Your task to perform on an android device: What's the weather today? Image 0: 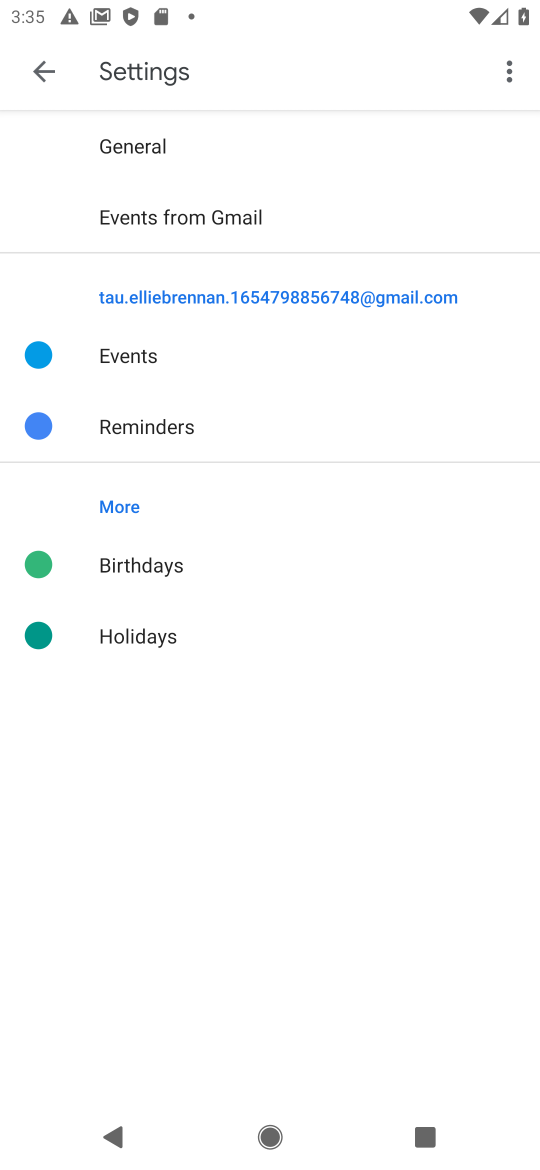
Step 0: press back button
Your task to perform on an android device: What's the weather today? Image 1: 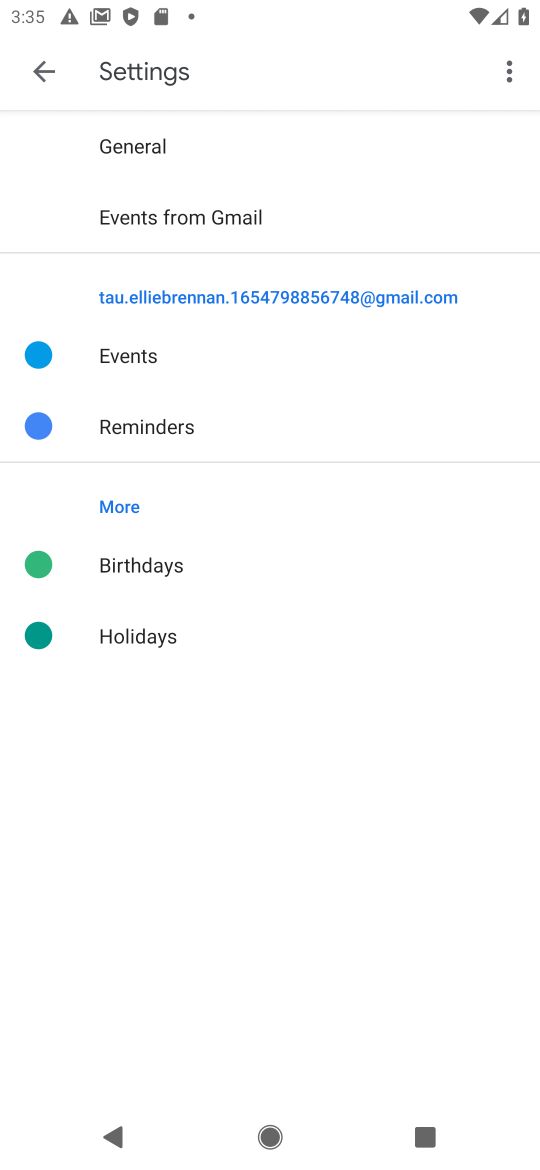
Step 1: press back button
Your task to perform on an android device: What's the weather today? Image 2: 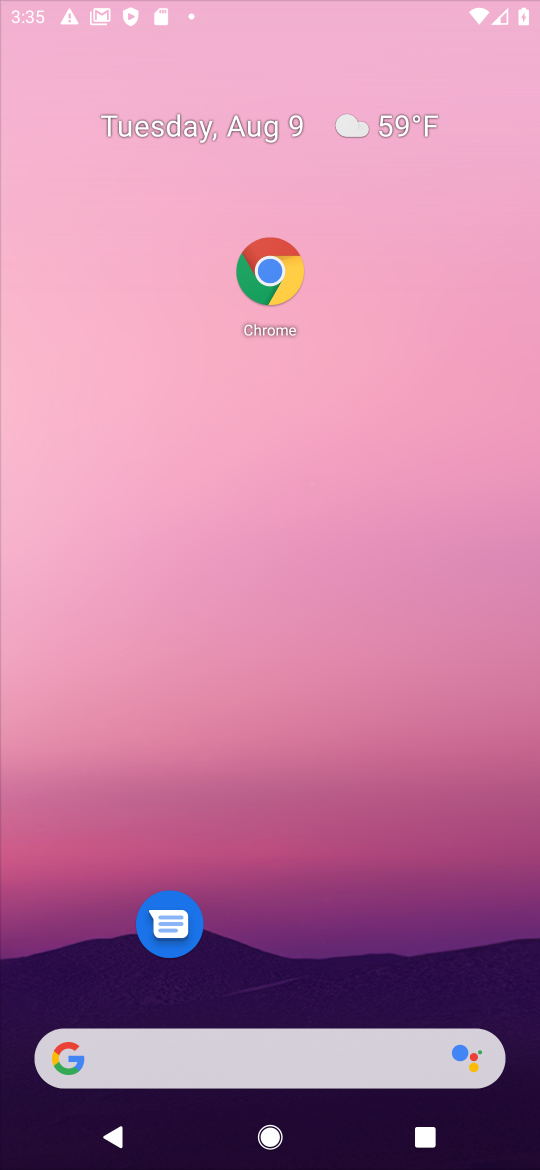
Step 2: press back button
Your task to perform on an android device: What's the weather today? Image 3: 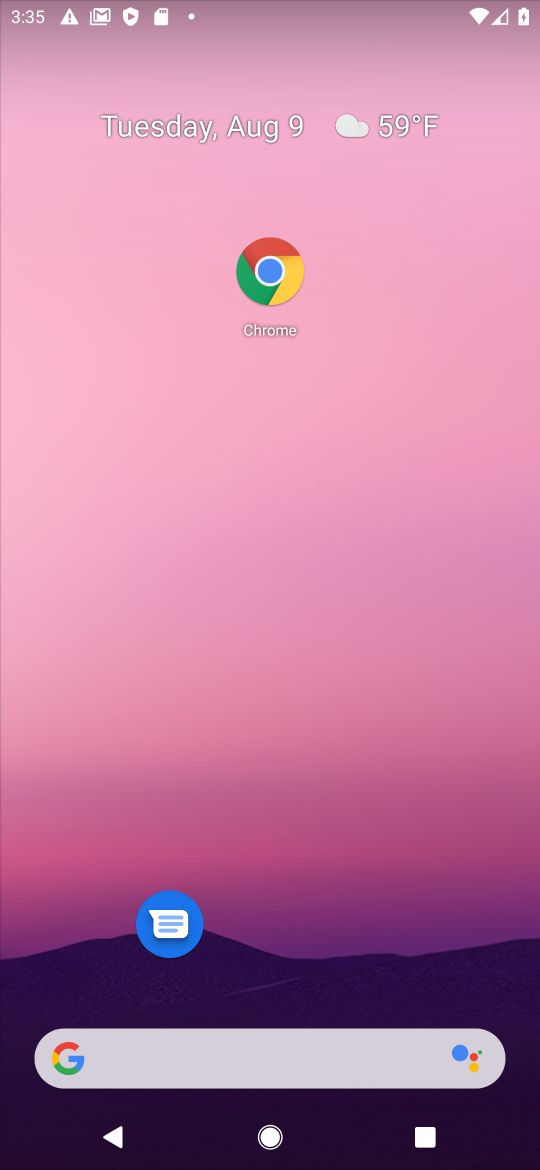
Step 3: press back button
Your task to perform on an android device: What's the weather today? Image 4: 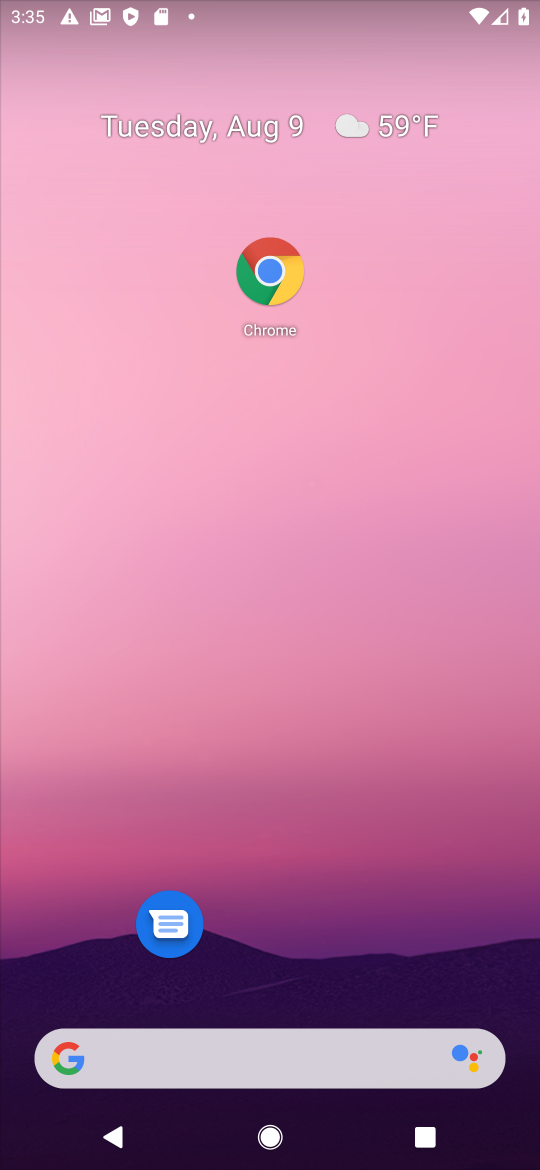
Step 4: drag from (338, 1027) to (252, 291)
Your task to perform on an android device: What's the weather today? Image 5: 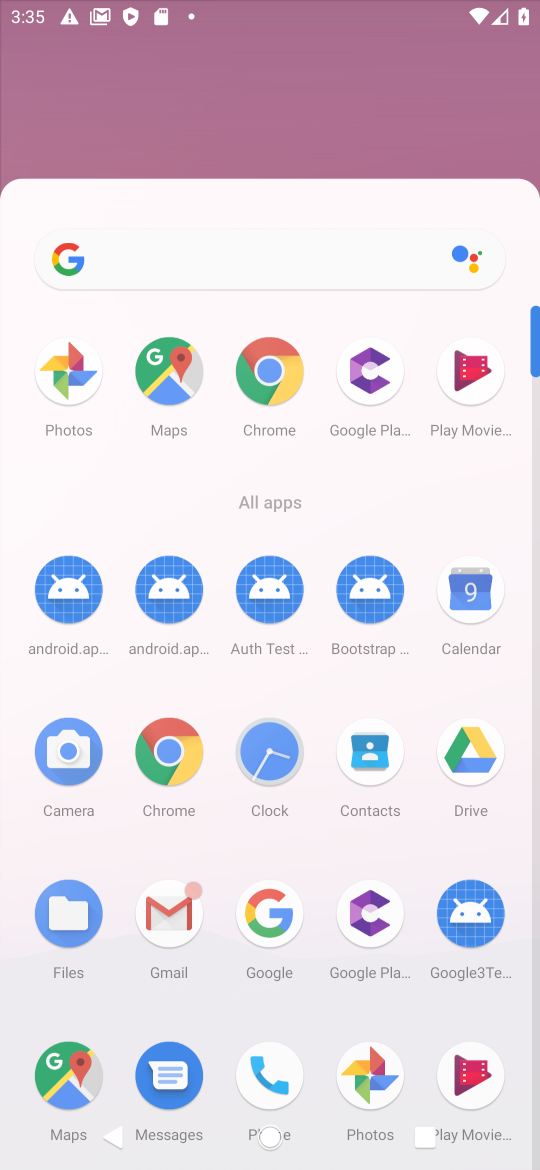
Step 5: drag from (255, 632) to (255, 162)
Your task to perform on an android device: What's the weather today? Image 6: 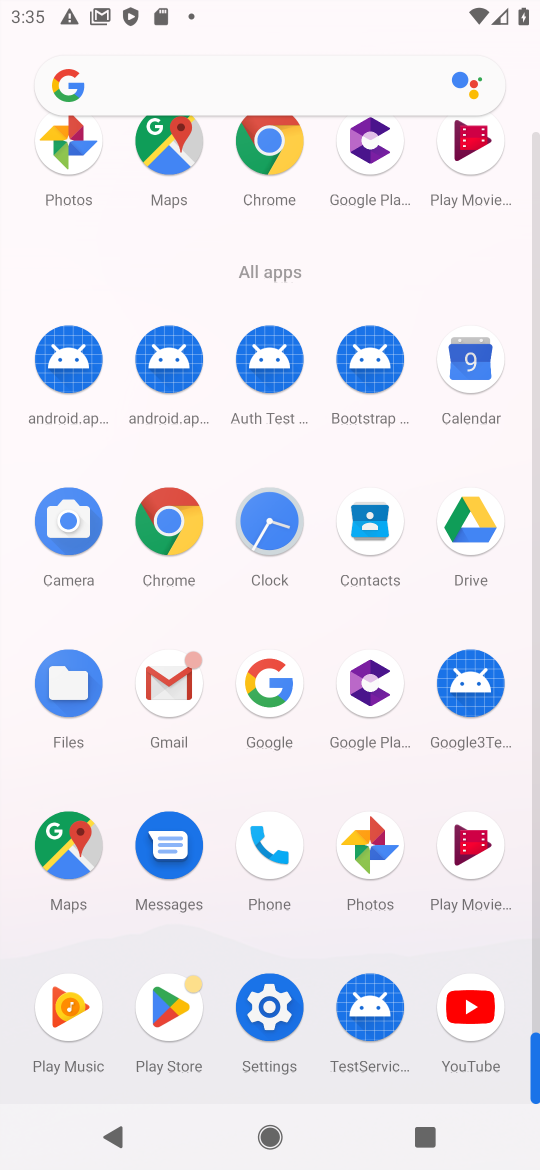
Step 6: click (284, 205)
Your task to perform on an android device: What's the weather today? Image 7: 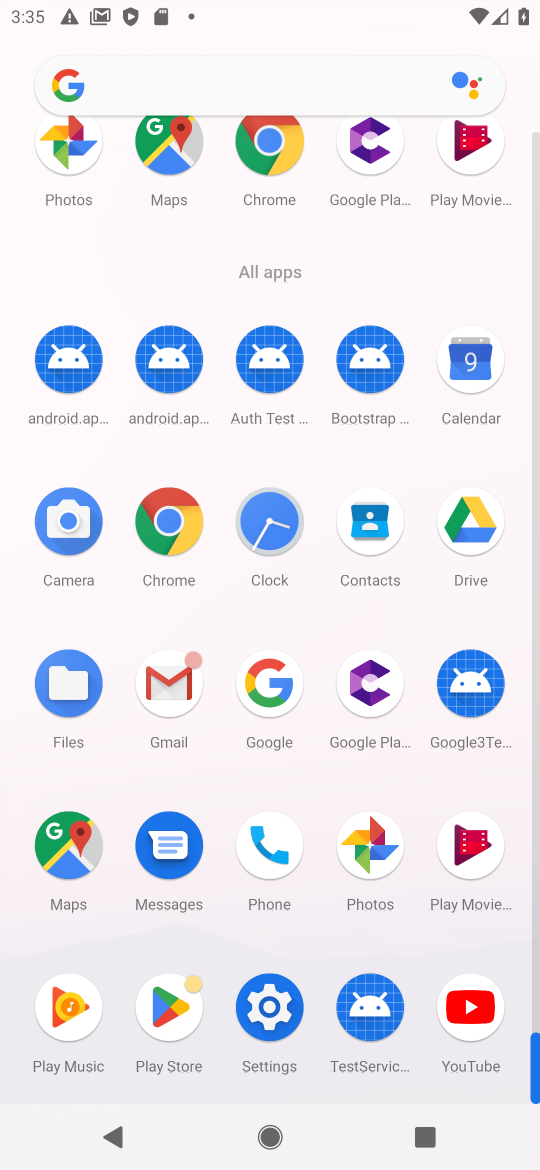
Step 7: click (273, 175)
Your task to perform on an android device: What's the weather today? Image 8: 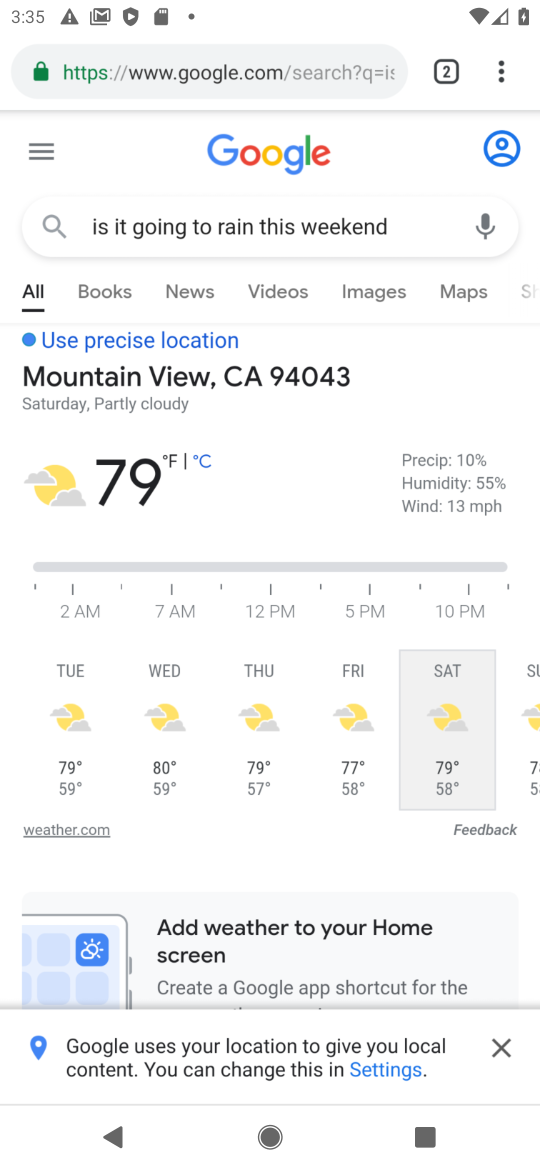
Step 8: click (274, 169)
Your task to perform on an android device: What's the weather today? Image 9: 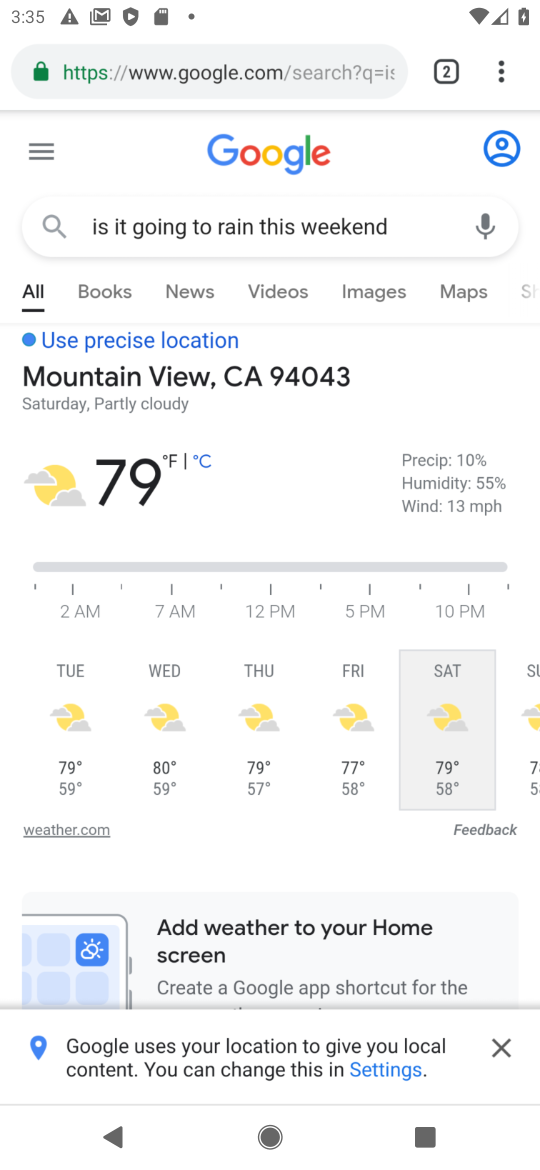
Step 9: click (277, 171)
Your task to perform on an android device: What's the weather today? Image 10: 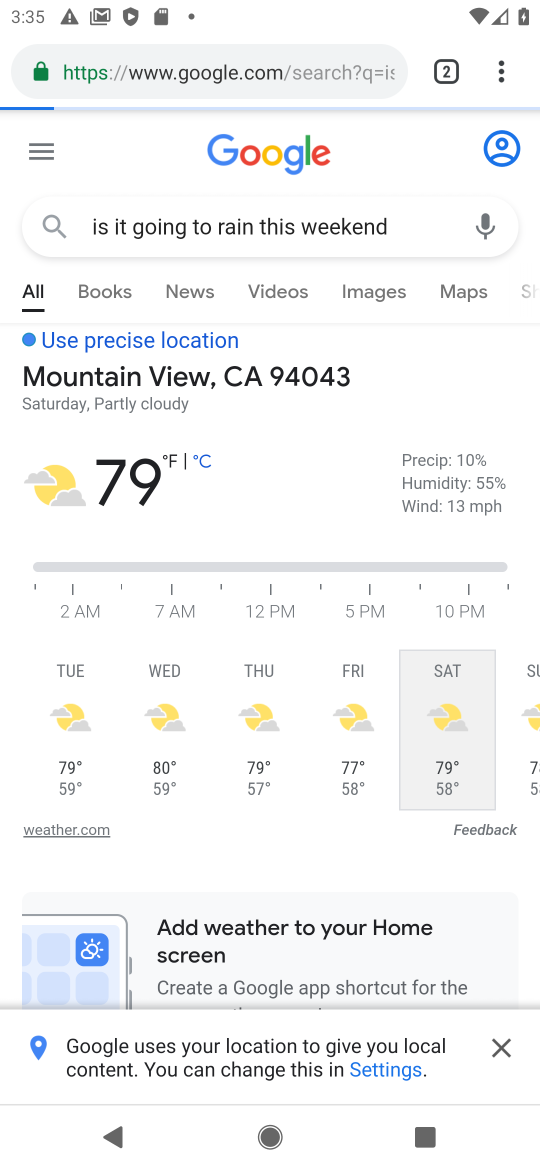
Step 10: task complete